Your task to perform on an android device: see tabs open on other devices in the chrome app Image 0: 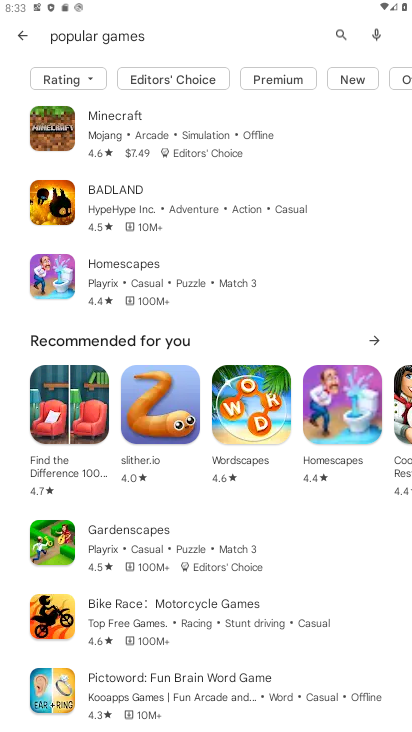
Step 0: drag from (290, 8) to (219, 325)
Your task to perform on an android device: see tabs open on other devices in the chrome app Image 1: 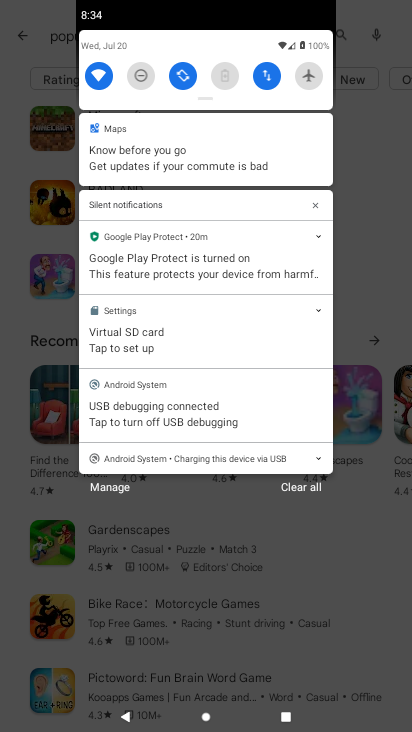
Step 1: press home button
Your task to perform on an android device: see tabs open on other devices in the chrome app Image 2: 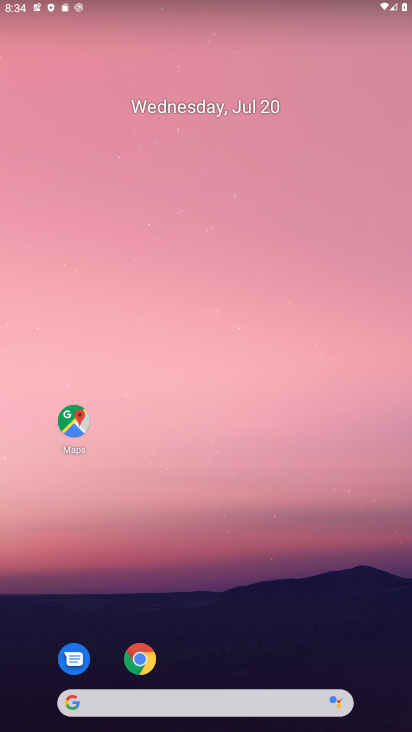
Step 2: drag from (290, 594) to (337, 141)
Your task to perform on an android device: see tabs open on other devices in the chrome app Image 3: 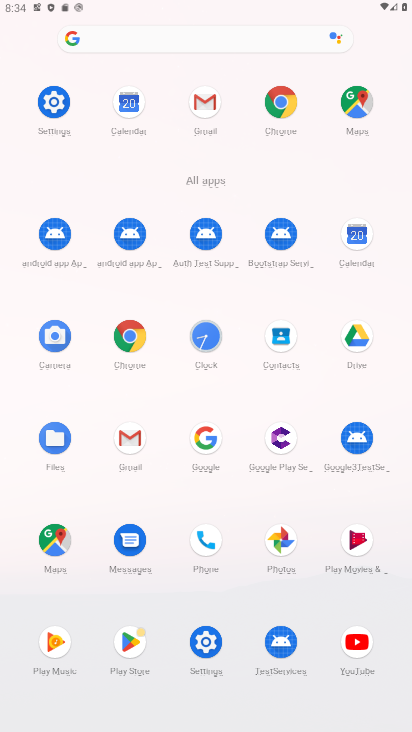
Step 3: drag from (268, 430) to (275, 388)
Your task to perform on an android device: see tabs open on other devices in the chrome app Image 4: 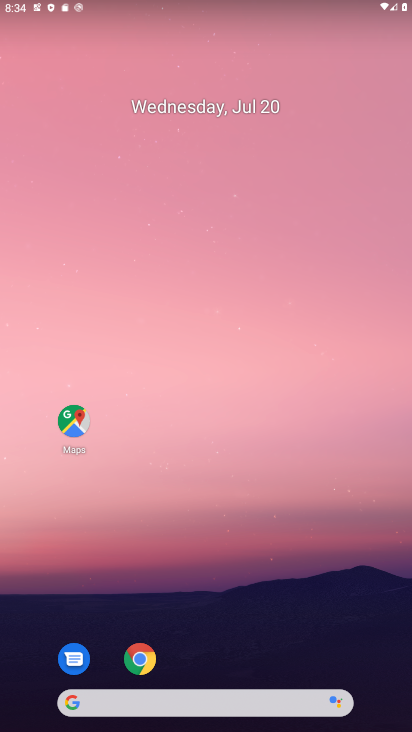
Step 4: drag from (291, 639) to (364, 175)
Your task to perform on an android device: see tabs open on other devices in the chrome app Image 5: 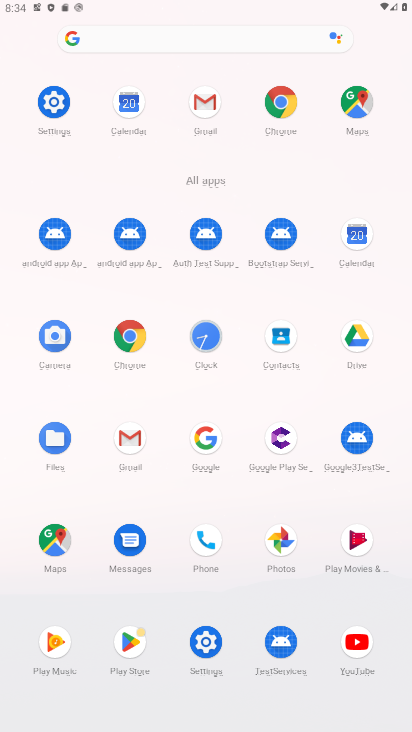
Step 5: click (273, 99)
Your task to perform on an android device: see tabs open on other devices in the chrome app Image 6: 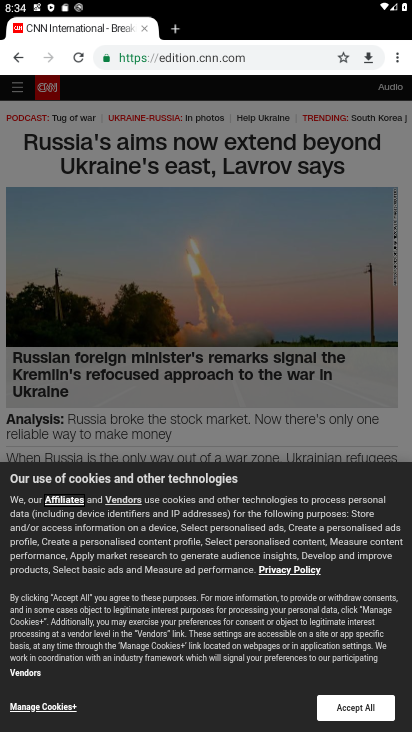
Step 6: drag from (392, 60) to (286, 144)
Your task to perform on an android device: see tabs open on other devices in the chrome app Image 7: 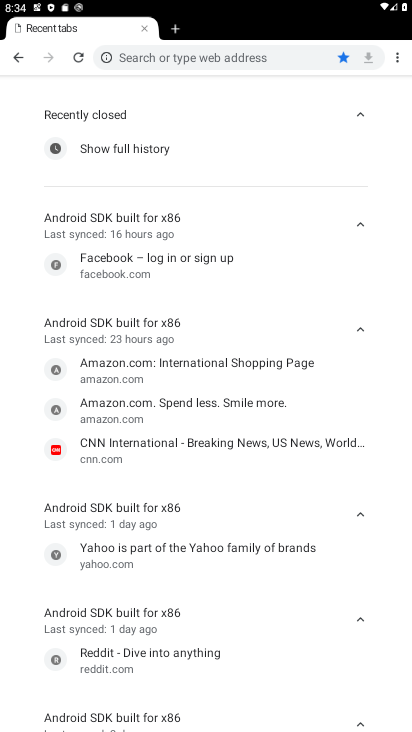
Step 7: click (355, 217)
Your task to perform on an android device: see tabs open on other devices in the chrome app Image 8: 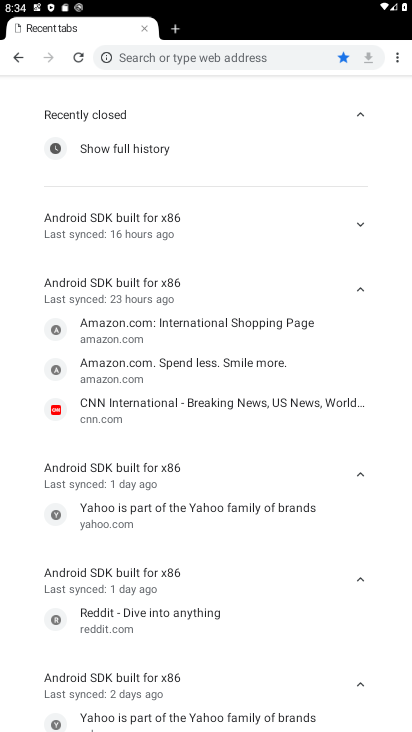
Step 8: click (355, 114)
Your task to perform on an android device: see tabs open on other devices in the chrome app Image 9: 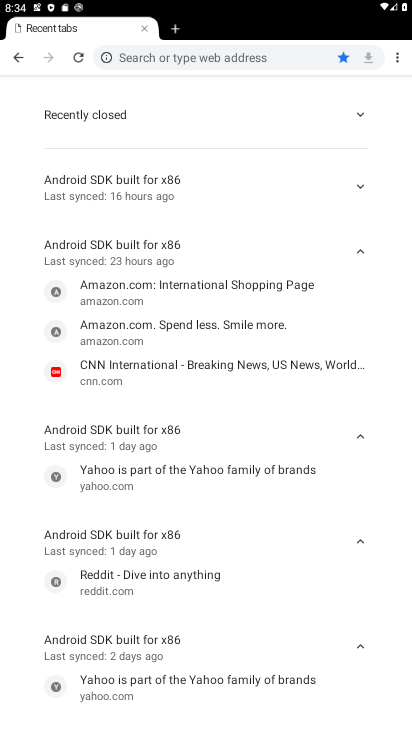
Step 9: click (355, 114)
Your task to perform on an android device: see tabs open on other devices in the chrome app Image 10: 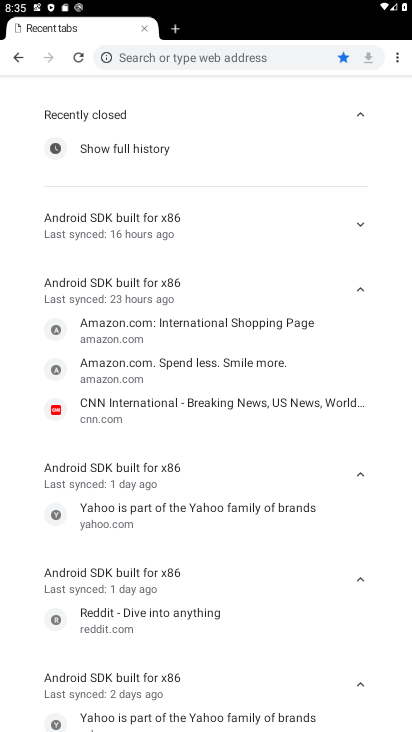
Step 10: task complete